Your task to perform on an android device: Open Google Chrome and open the bookmarks view Image 0: 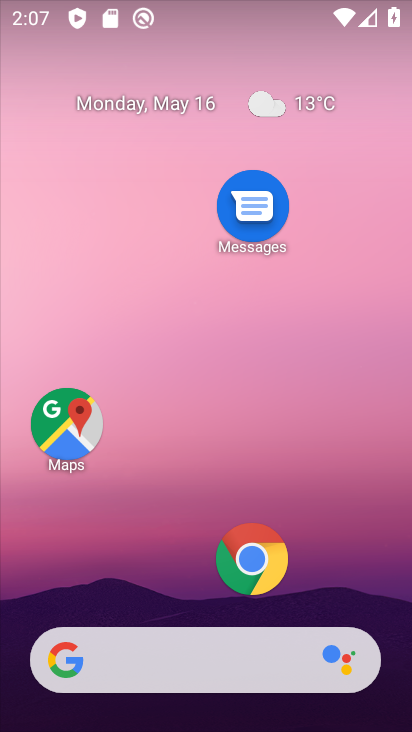
Step 0: click (253, 559)
Your task to perform on an android device: Open Google Chrome and open the bookmarks view Image 1: 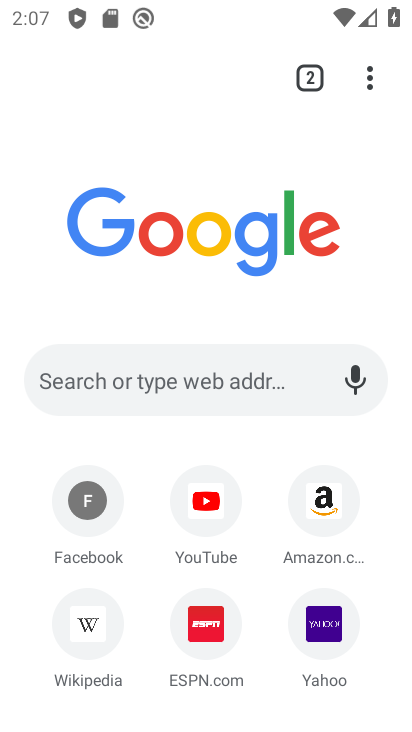
Step 1: click (370, 70)
Your task to perform on an android device: Open Google Chrome and open the bookmarks view Image 2: 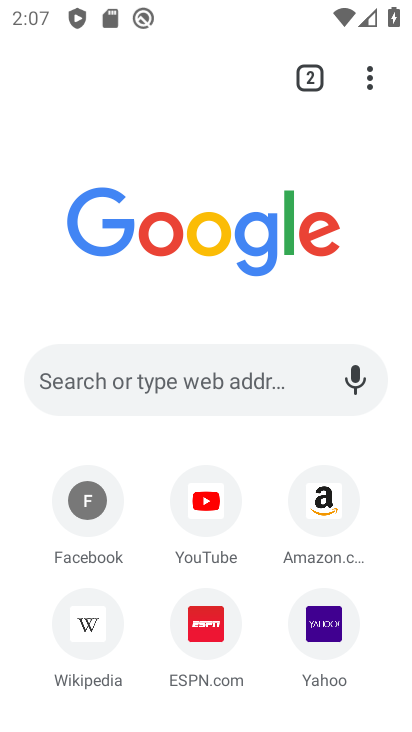
Step 2: click (370, 73)
Your task to perform on an android device: Open Google Chrome and open the bookmarks view Image 3: 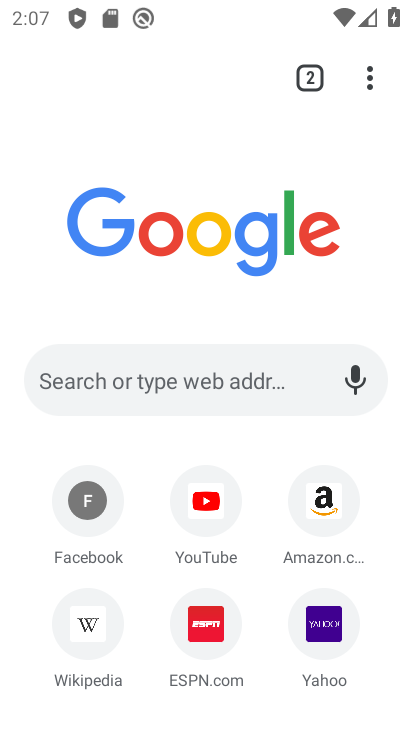
Step 3: click (370, 73)
Your task to perform on an android device: Open Google Chrome and open the bookmarks view Image 4: 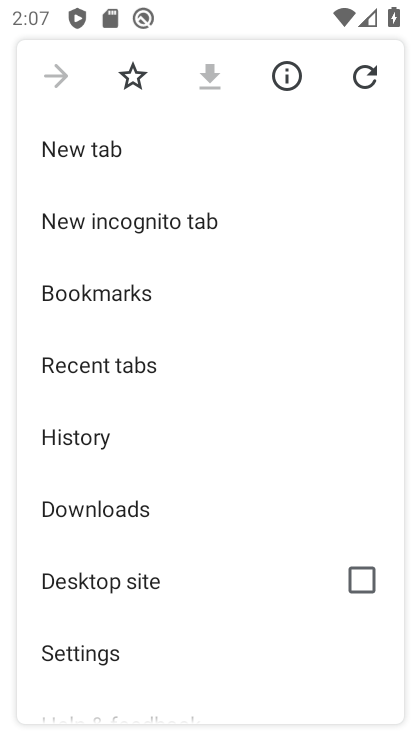
Step 4: click (83, 292)
Your task to perform on an android device: Open Google Chrome and open the bookmarks view Image 5: 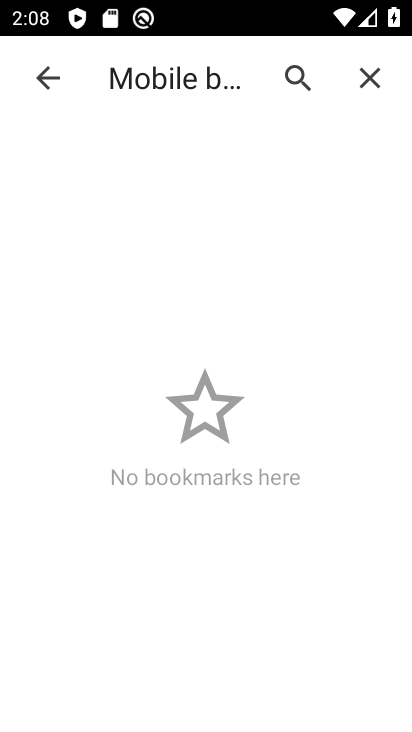
Step 5: task complete